Your task to perform on an android device: How much does a 2 bedroom apartment rent for in New York? Image 0: 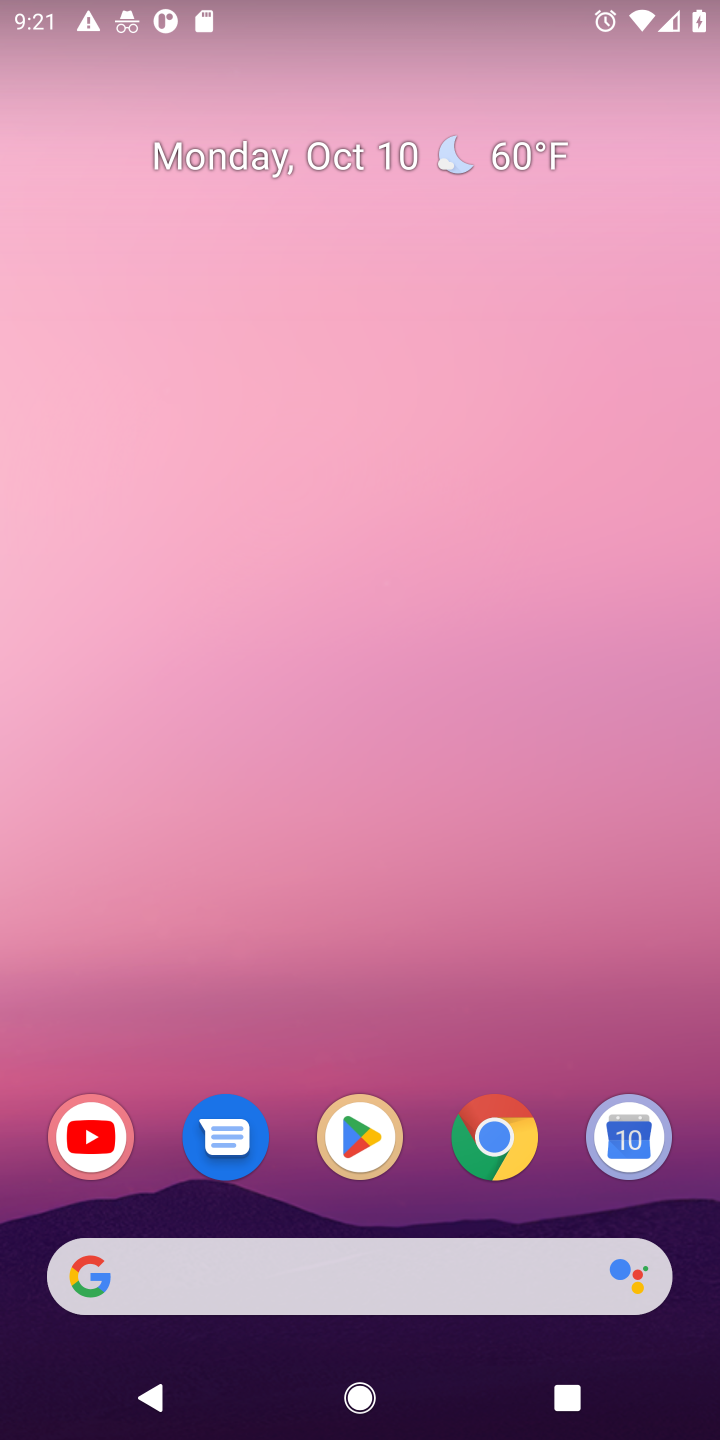
Step 0: click (494, 1144)
Your task to perform on an android device: How much does a 2 bedroom apartment rent for in New York? Image 1: 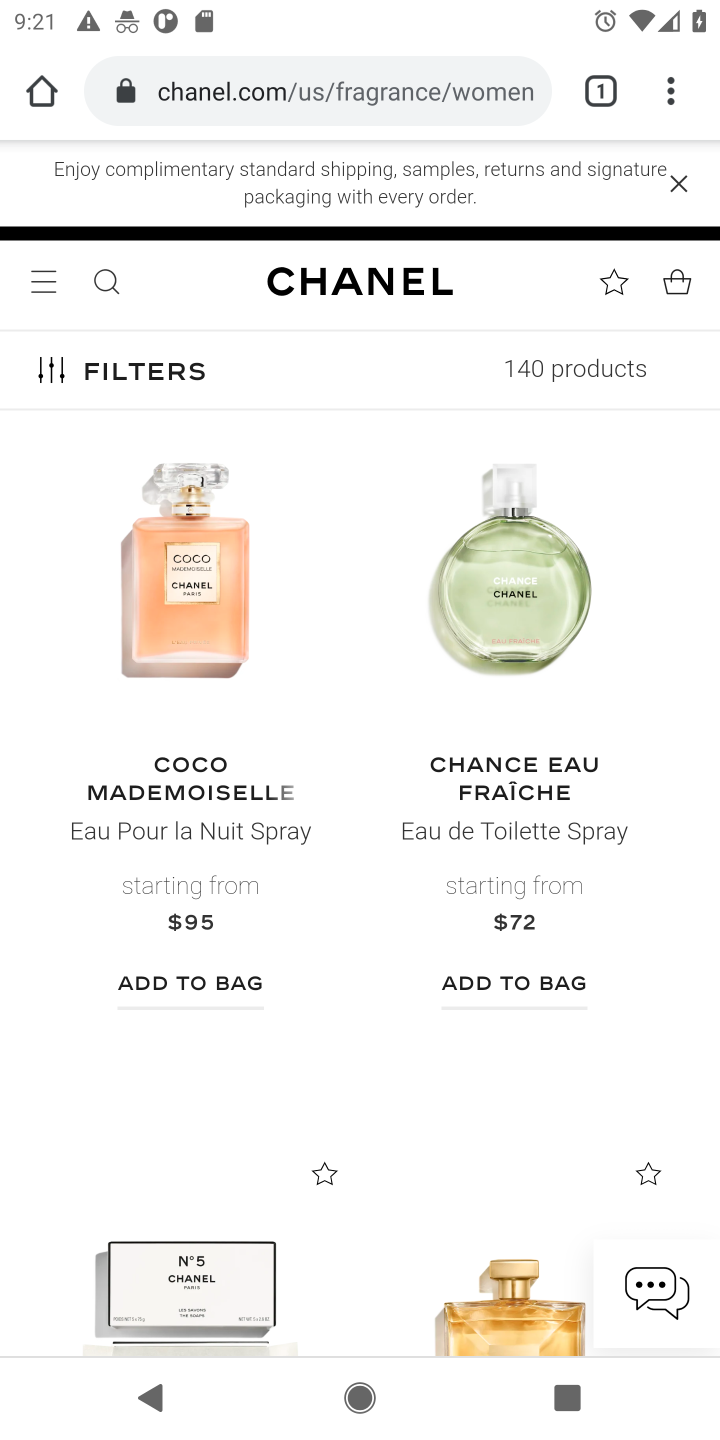
Step 1: click (303, 61)
Your task to perform on an android device: How much does a 2 bedroom apartment rent for in New York? Image 2: 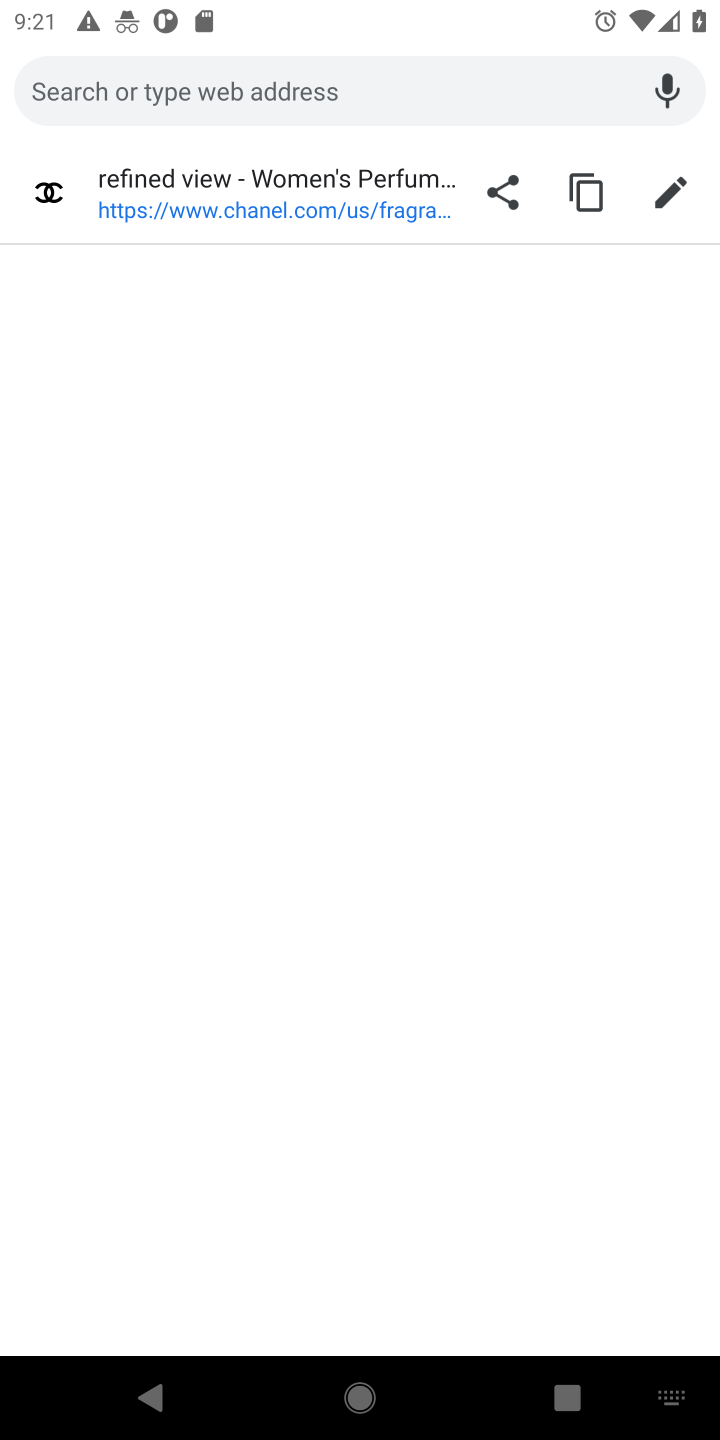
Step 2: type " 2 bedroom apartment rent for in New York?"
Your task to perform on an android device: How much does a 2 bedroom apartment rent for in New York? Image 3: 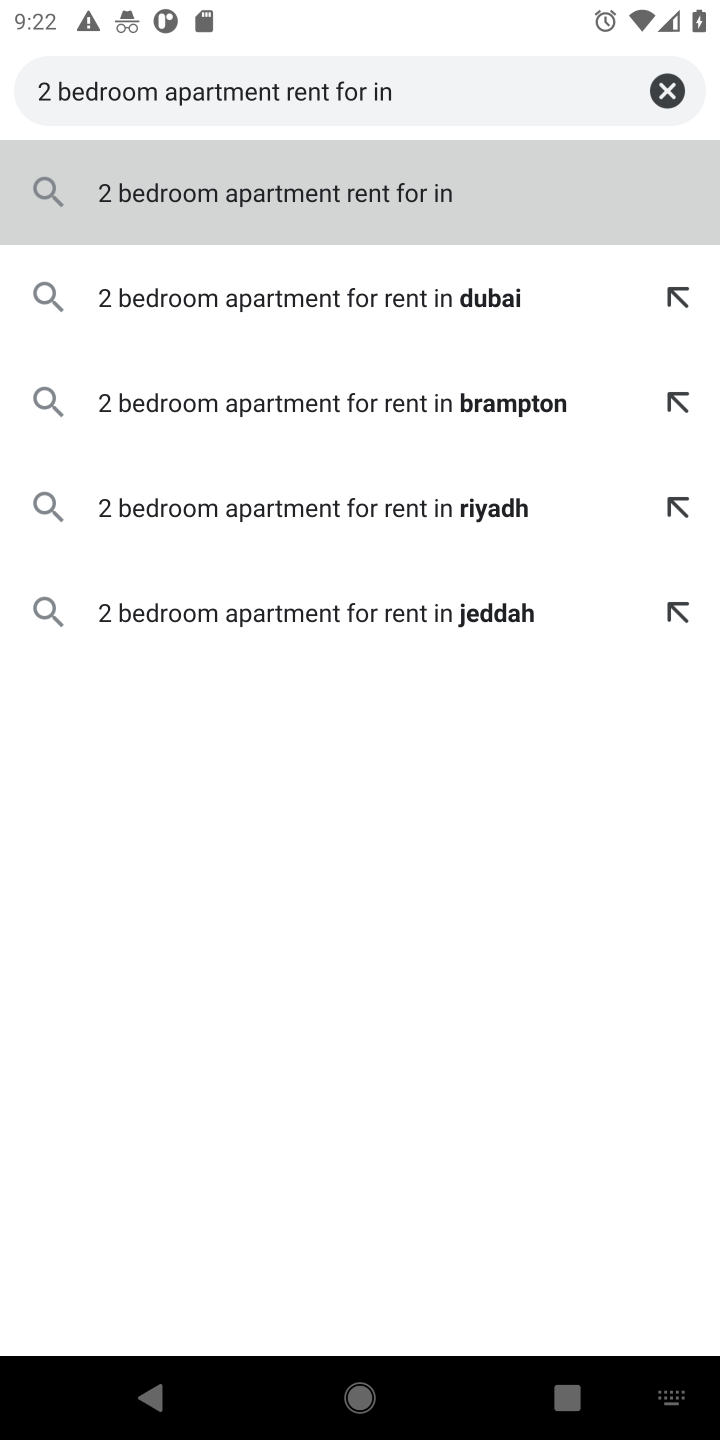
Step 3: type "new york"
Your task to perform on an android device: How much does a 2 bedroom apartment rent for in New York? Image 4: 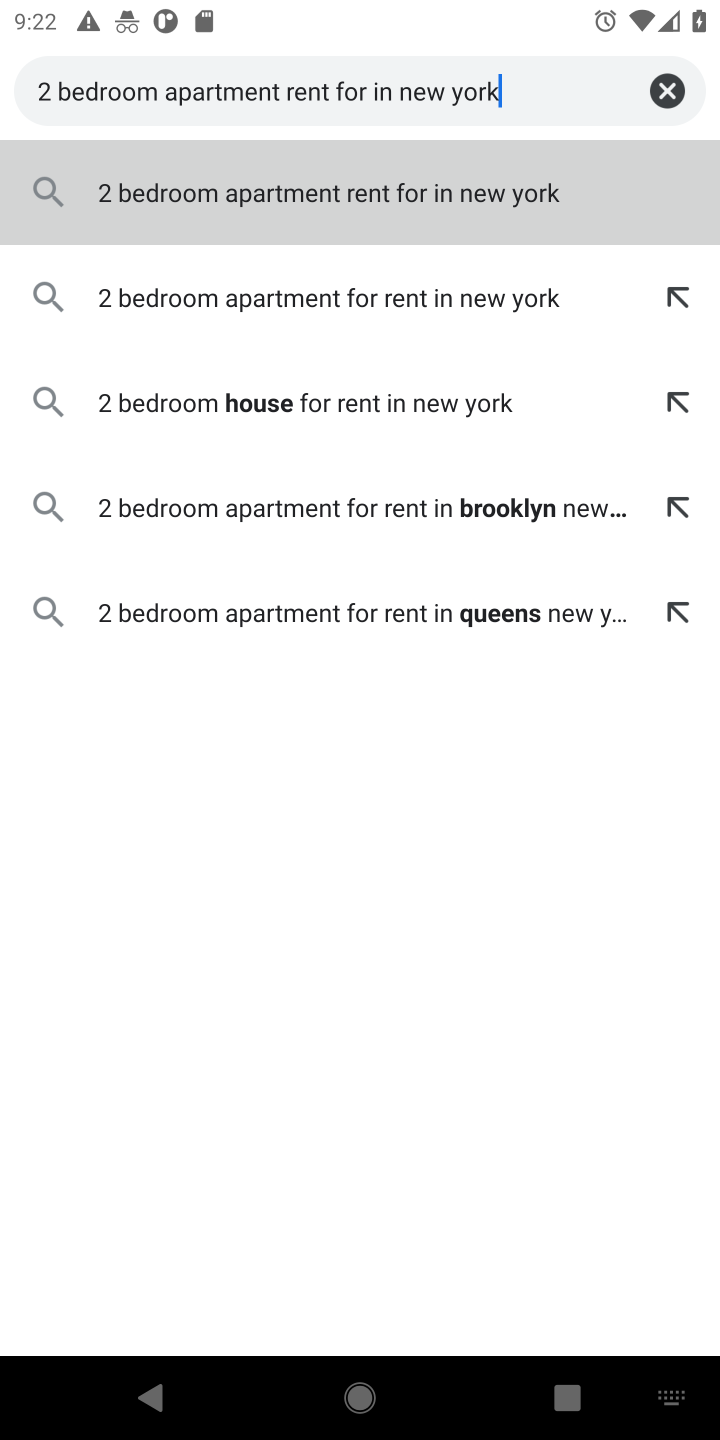
Step 4: click (280, 186)
Your task to perform on an android device: How much does a 2 bedroom apartment rent for in New York? Image 5: 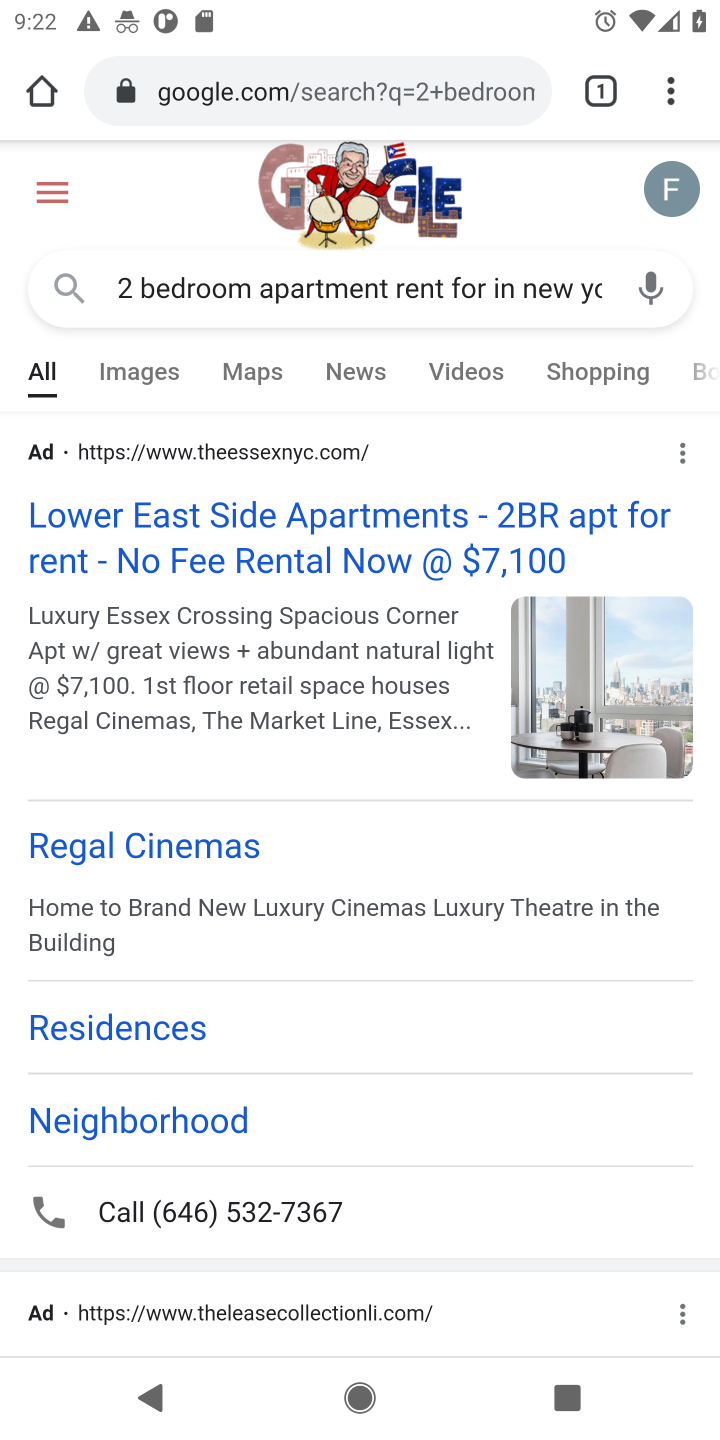
Step 5: drag from (353, 1177) to (254, 570)
Your task to perform on an android device: How much does a 2 bedroom apartment rent for in New York? Image 6: 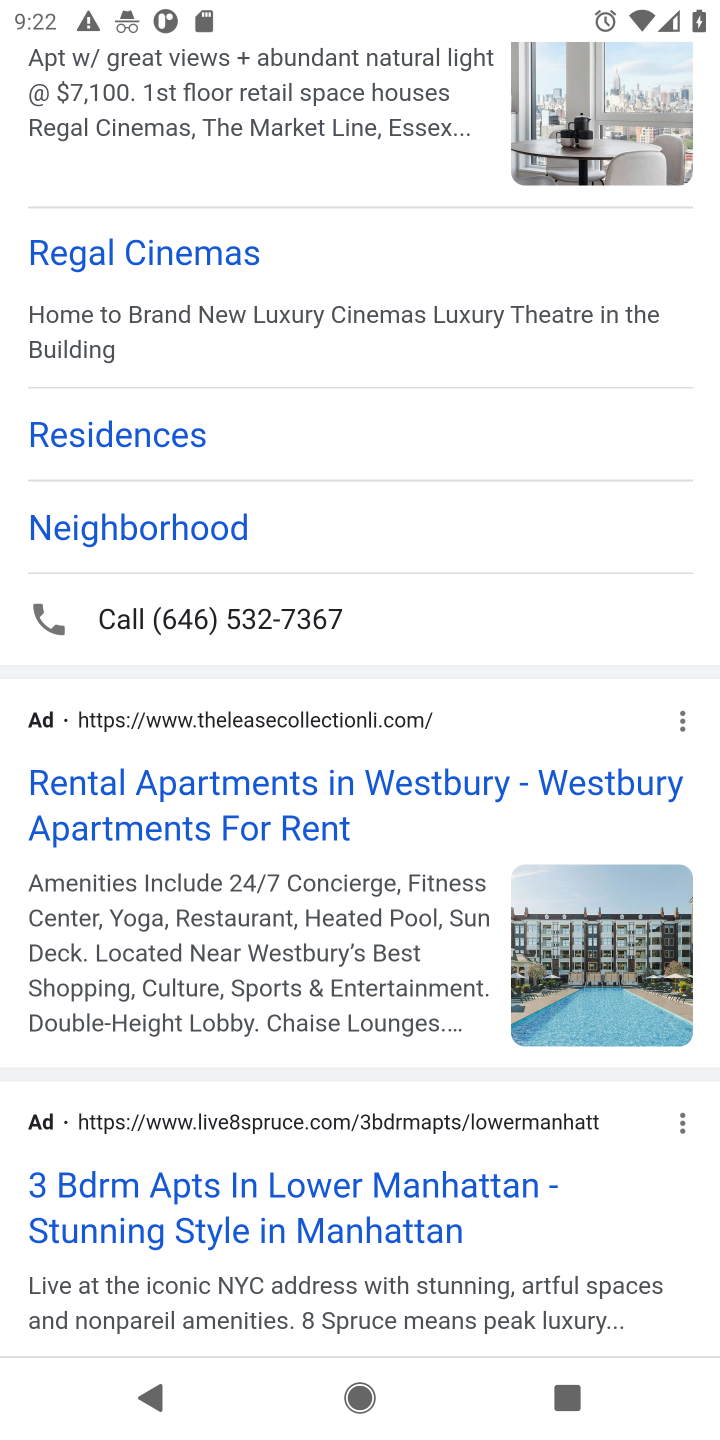
Step 6: drag from (318, 1051) to (342, 497)
Your task to perform on an android device: How much does a 2 bedroom apartment rent for in New York? Image 7: 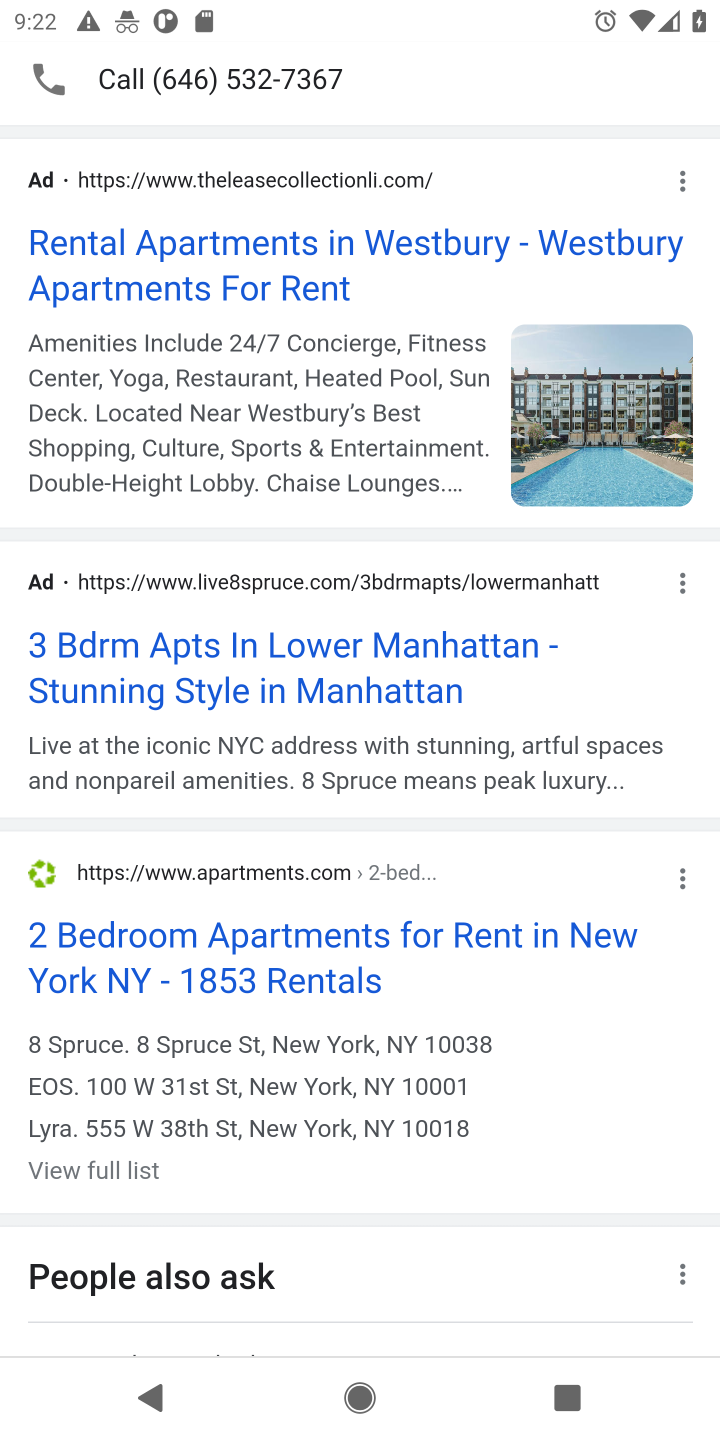
Step 7: click (111, 649)
Your task to perform on an android device: How much does a 2 bedroom apartment rent for in New York? Image 8: 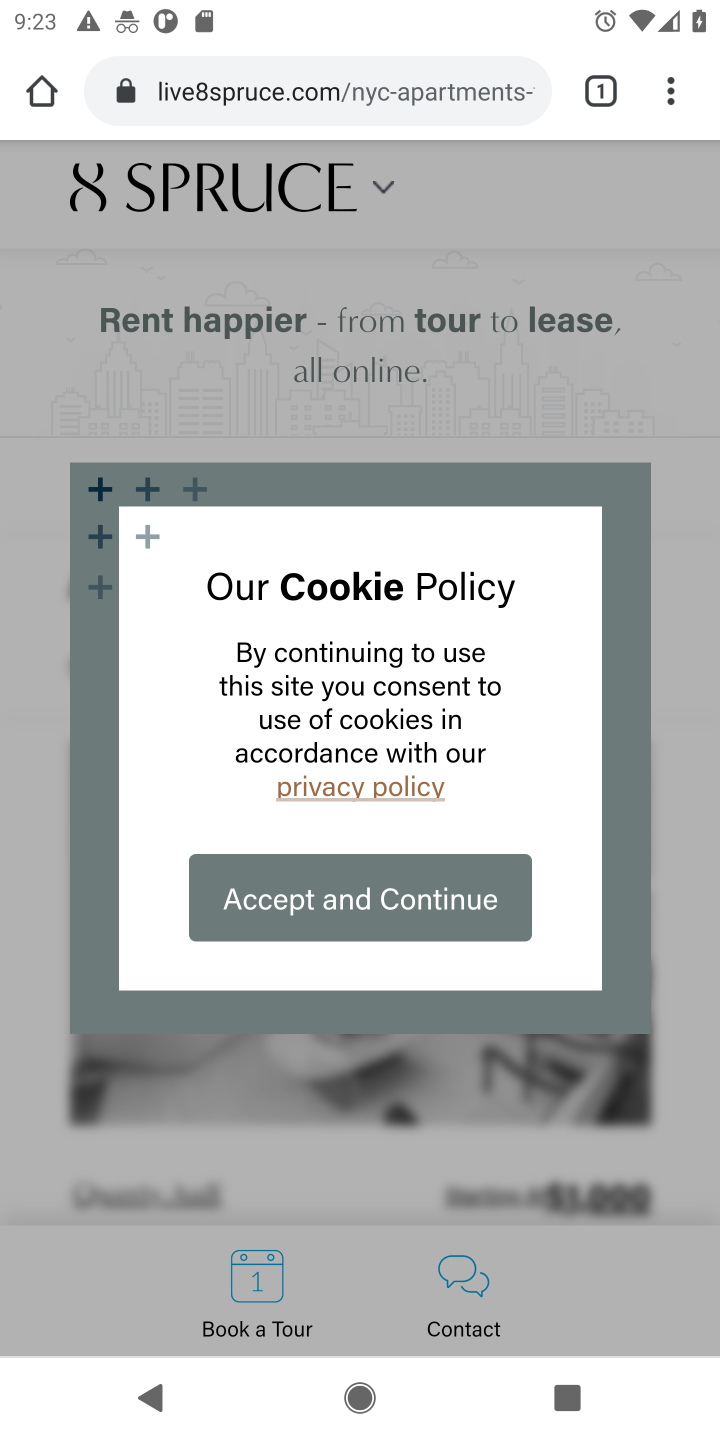
Step 8: click (288, 881)
Your task to perform on an android device: How much does a 2 bedroom apartment rent for in New York? Image 9: 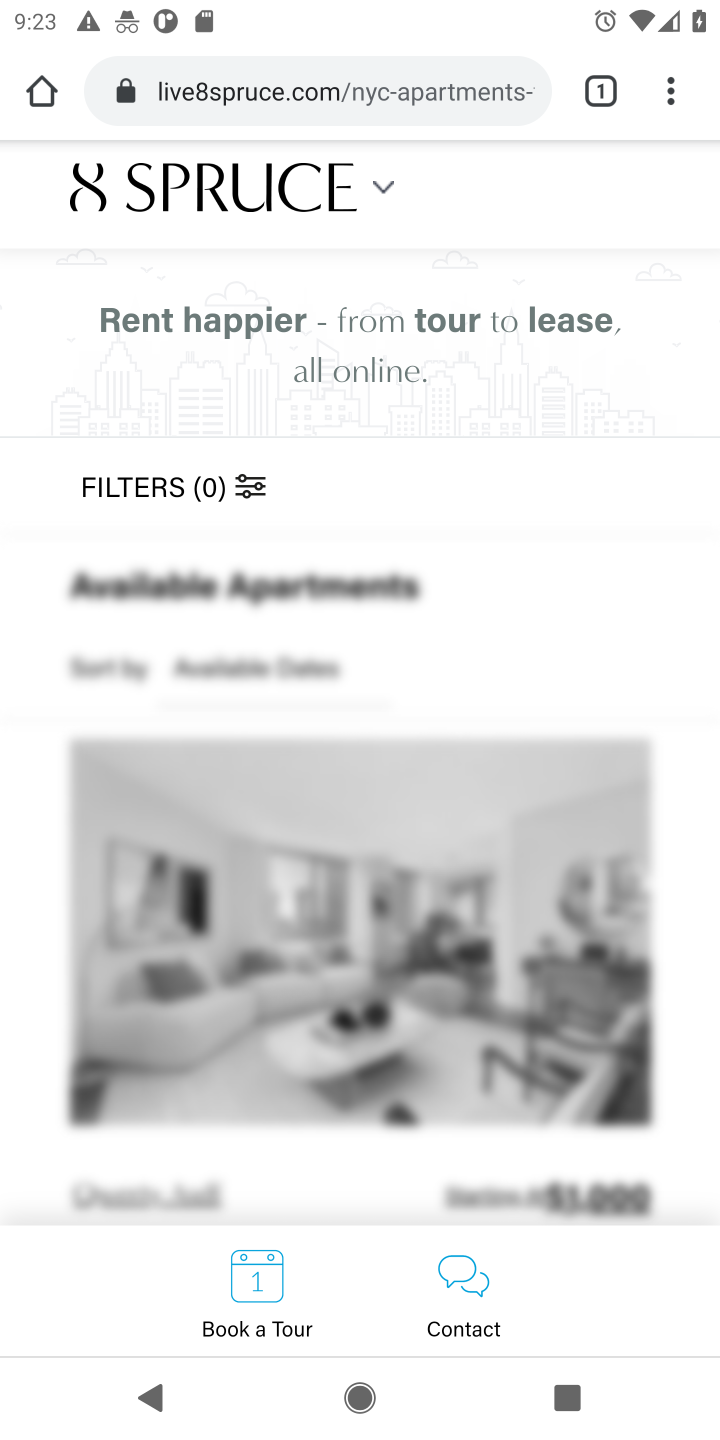
Step 9: drag from (666, 1187) to (507, 323)
Your task to perform on an android device: How much does a 2 bedroom apartment rent for in New York? Image 10: 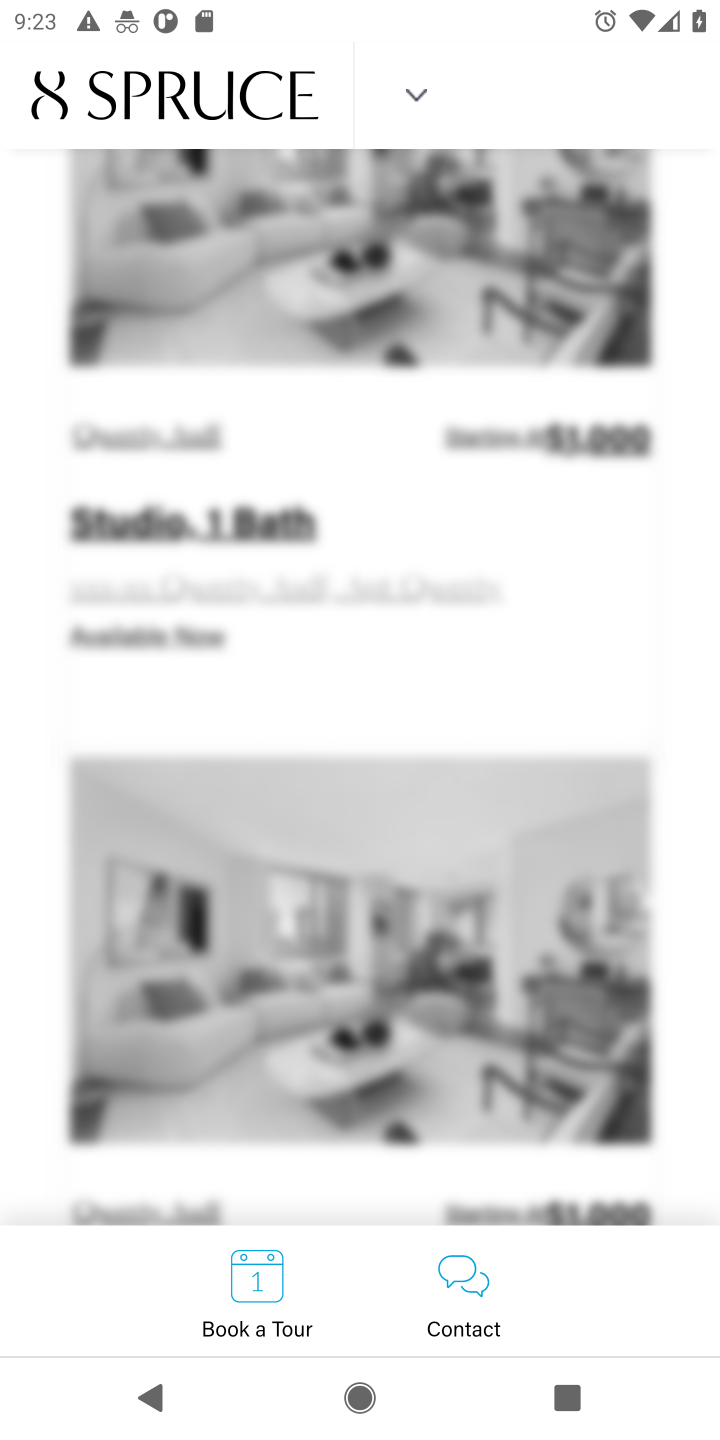
Step 10: drag from (503, 900) to (440, 199)
Your task to perform on an android device: How much does a 2 bedroom apartment rent for in New York? Image 11: 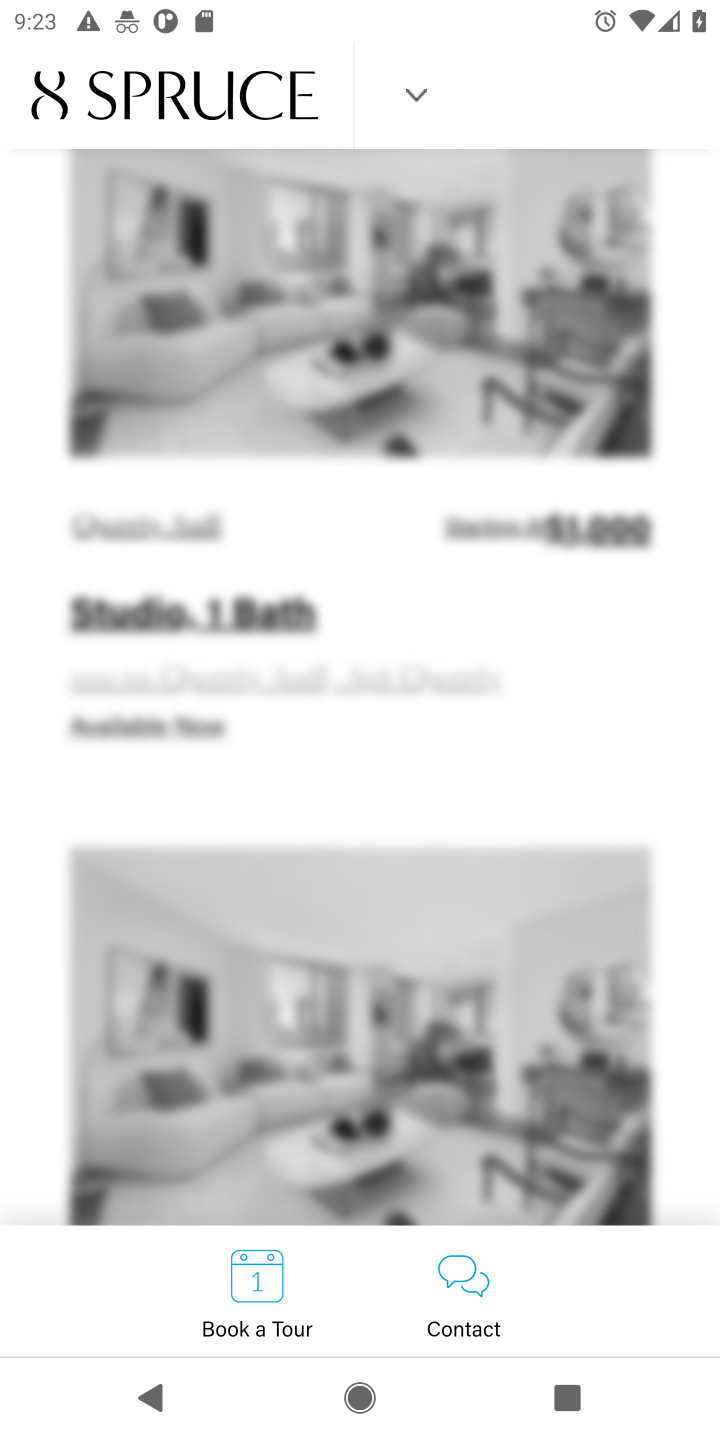
Step 11: press back button
Your task to perform on an android device: How much does a 2 bedroom apartment rent for in New York? Image 12: 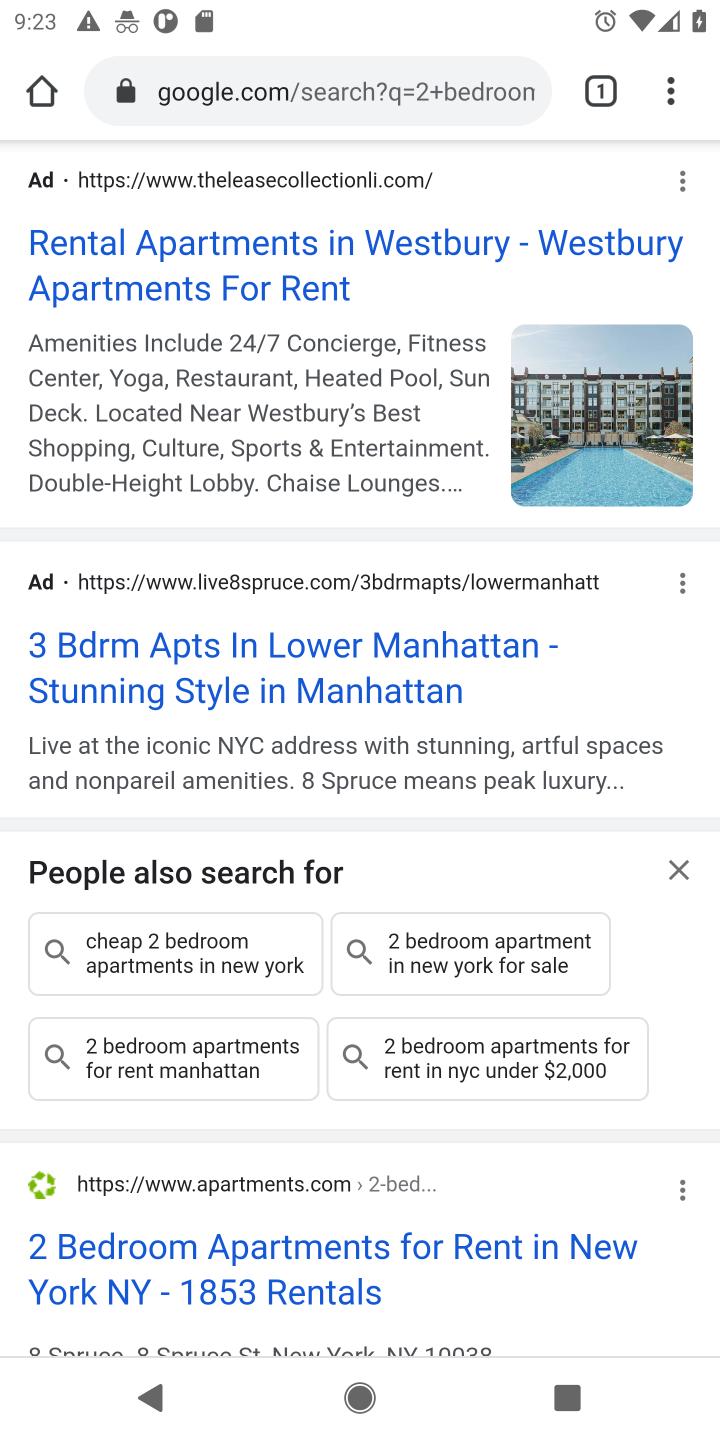
Step 12: drag from (425, 824) to (316, 199)
Your task to perform on an android device: How much does a 2 bedroom apartment rent for in New York? Image 13: 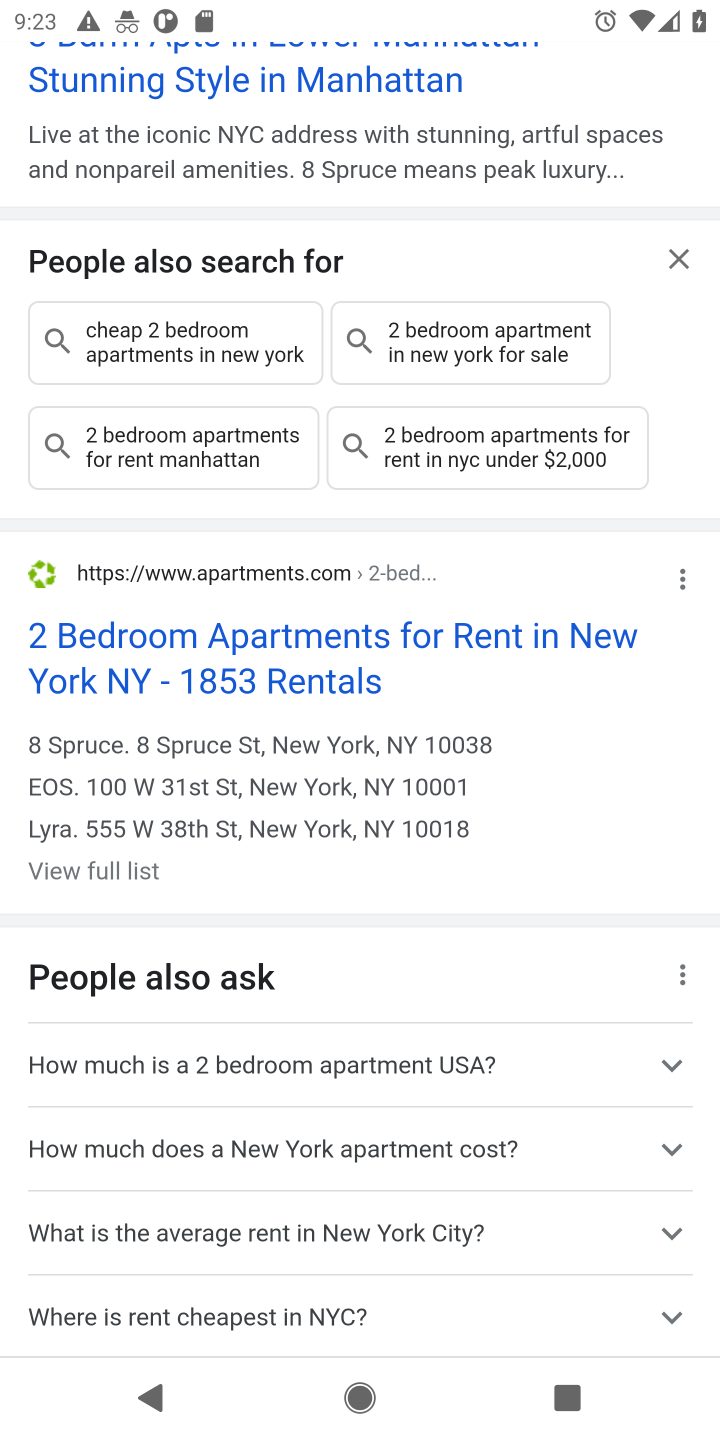
Step 13: click (138, 651)
Your task to perform on an android device: How much does a 2 bedroom apartment rent for in New York? Image 14: 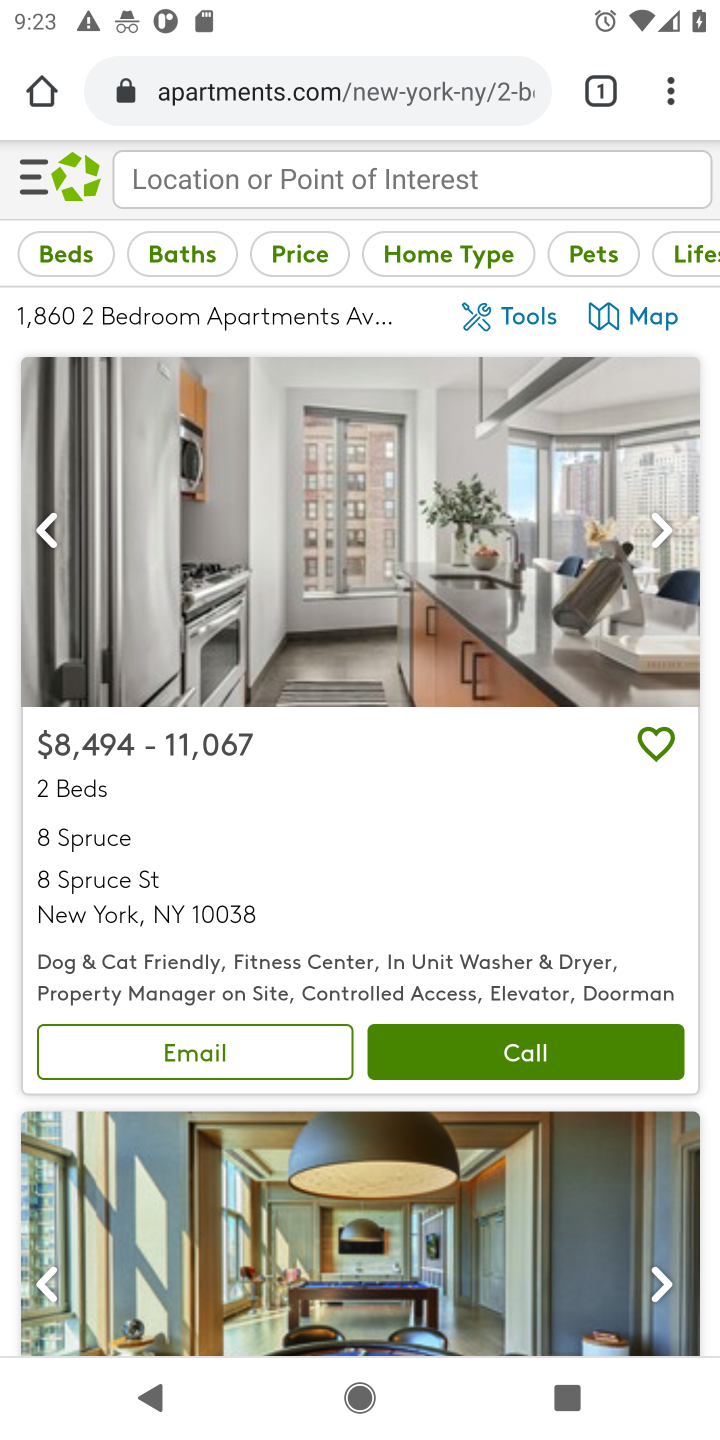
Step 14: task complete